Your task to perform on an android device: change alarm snooze length Image 0: 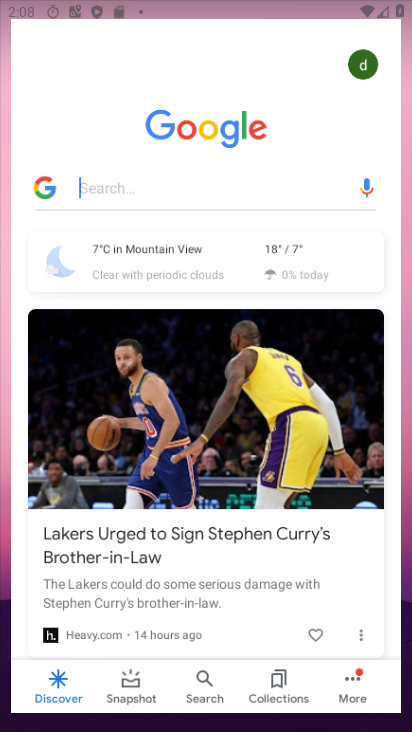
Step 0: drag from (287, 689) to (223, 0)
Your task to perform on an android device: change alarm snooze length Image 1: 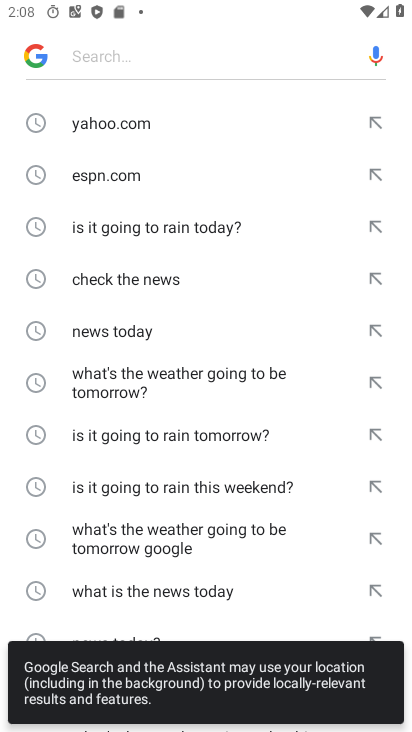
Step 1: press home button
Your task to perform on an android device: change alarm snooze length Image 2: 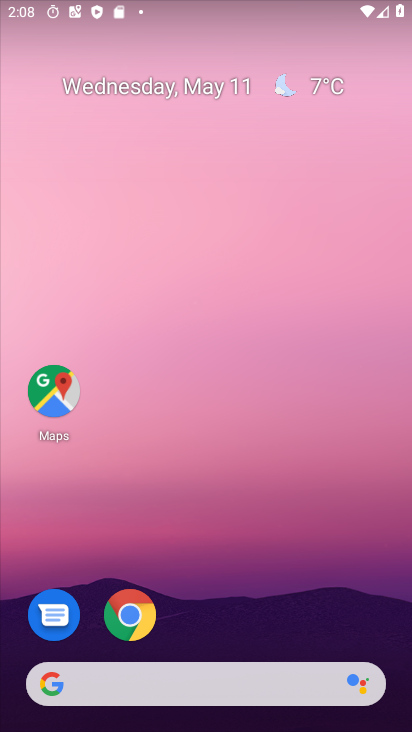
Step 2: drag from (238, 678) to (233, 453)
Your task to perform on an android device: change alarm snooze length Image 3: 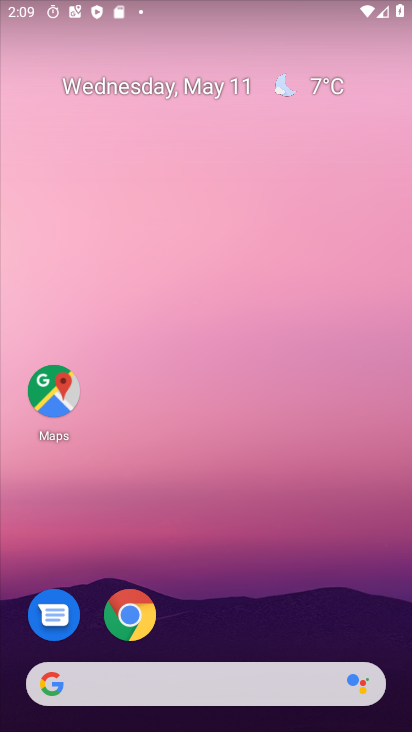
Step 3: drag from (201, 604) to (226, 247)
Your task to perform on an android device: change alarm snooze length Image 4: 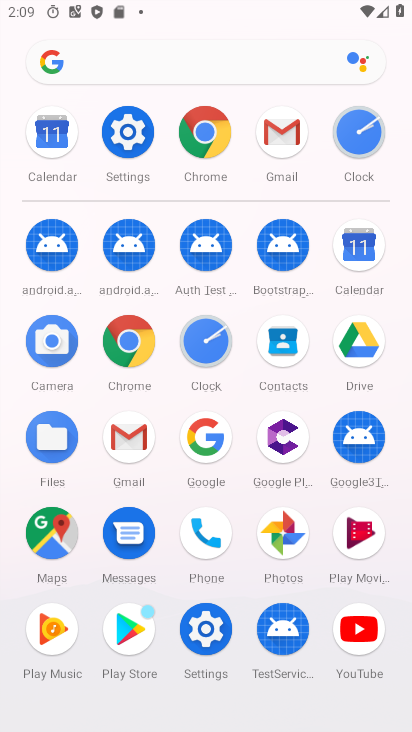
Step 4: click (217, 348)
Your task to perform on an android device: change alarm snooze length Image 5: 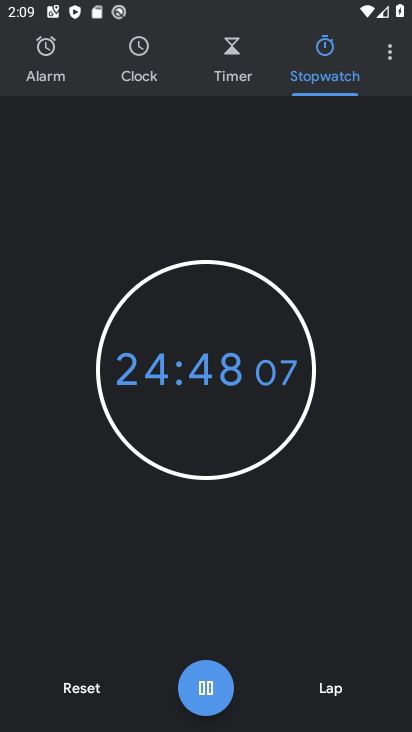
Step 5: click (392, 57)
Your task to perform on an android device: change alarm snooze length Image 6: 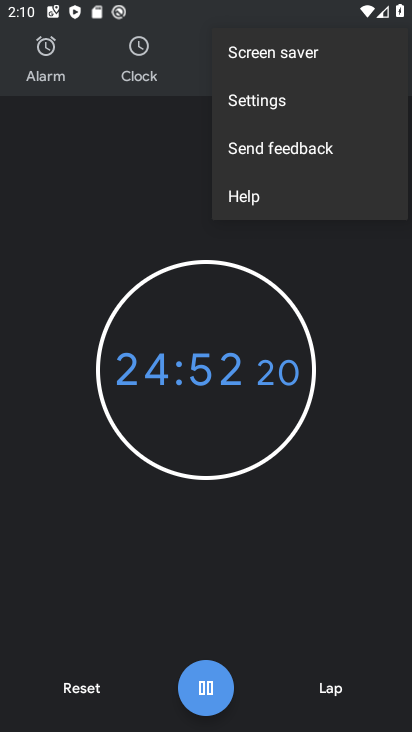
Step 6: click (292, 95)
Your task to perform on an android device: change alarm snooze length Image 7: 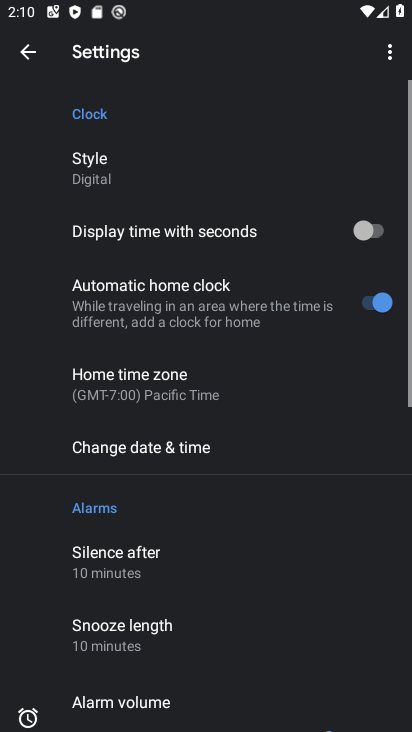
Step 7: drag from (239, 543) to (256, 191)
Your task to perform on an android device: change alarm snooze length Image 8: 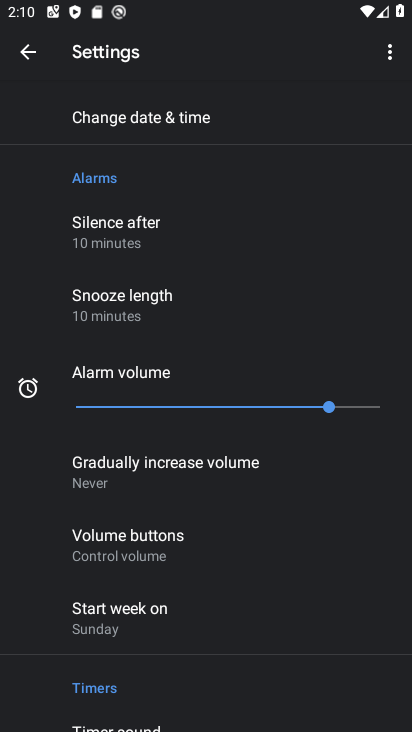
Step 8: click (160, 317)
Your task to perform on an android device: change alarm snooze length Image 9: 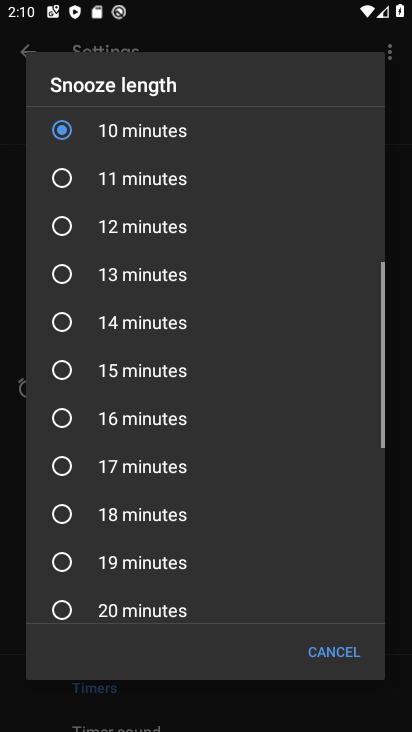
Step 9: click (116, 263)
Your task to perform on an android device: change alarm snooze length Image 10: 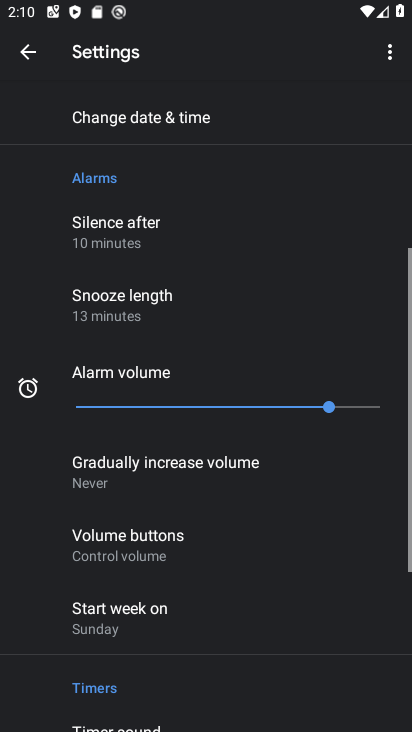
Step 10: task complete